Your task to perform on an android device: turn on improve location accuracy Image 0: 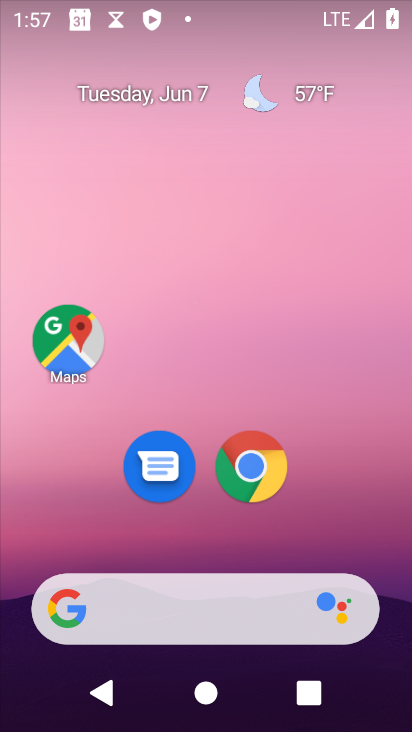
Step 0: drag from (209, 535) to (295, 0)
Your task to perform on an android device: turn on improve location accuracy Image 1: 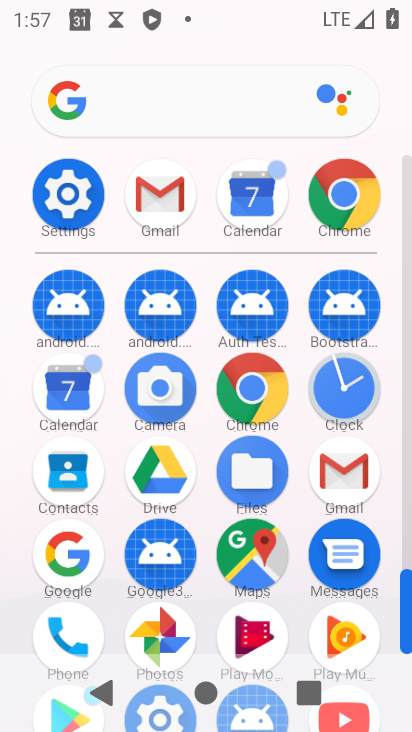
Step 1: click (75, 190)
Your task to perform on an android device: turn on improve location accuracy Image 2: 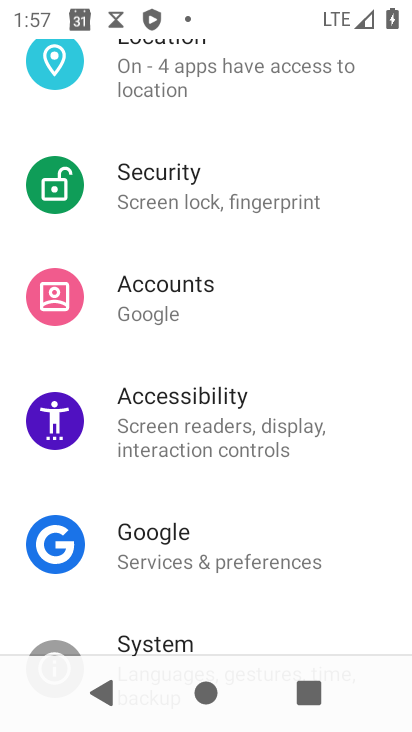
Step 2: drag from (295, 268) to (224, 547)
Your task to perform on an android device: turn on improve location accuracy Image 3: 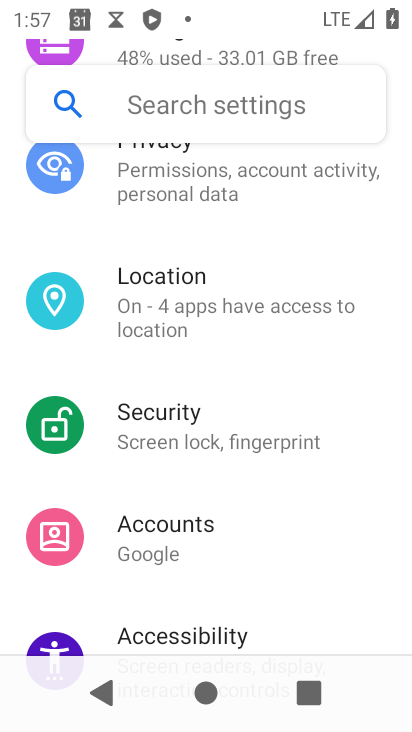
Step 3: click (175, 298)
Your task to perform on an android device: turn on improve location accuracy Image 4: 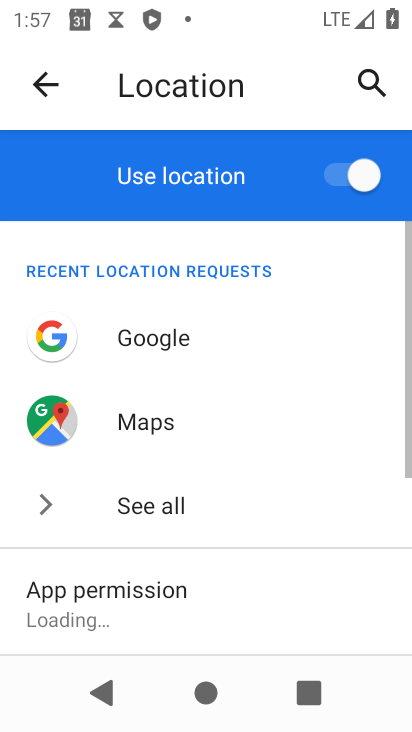
Step 4: drag from (151, 559) to (263, 57)
Your task to perform on an android device: turn on improve location accuracy Image 5: 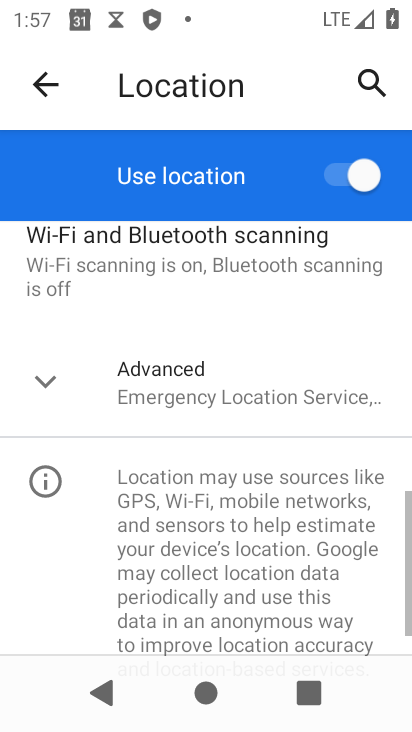
Step 5: click (252, 394)
Your task to perform on an android device: turn on improve location accuracy Image 6: 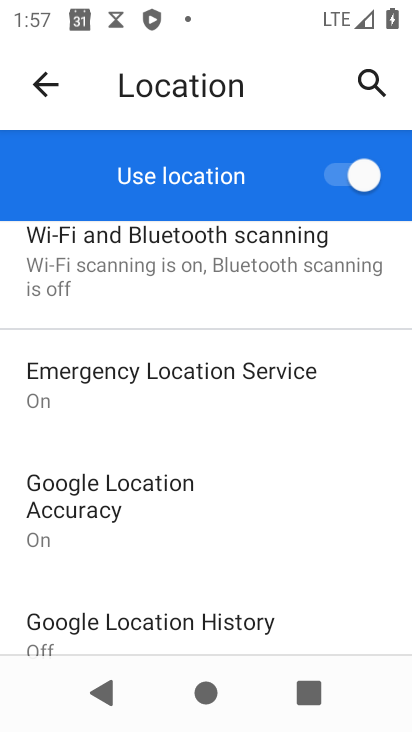
Step 6: click (89, 476)
Your task to perform on an android device: turn on improve location accuracy Image 7: 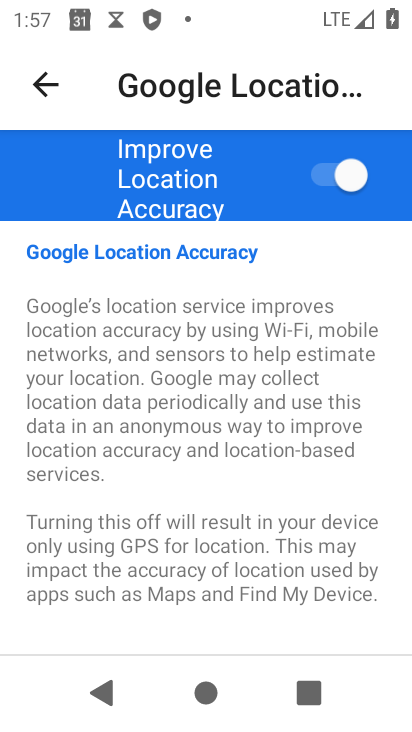
Step 7: task complete